Your task to perform on an android device: What is the news today? Image 0: 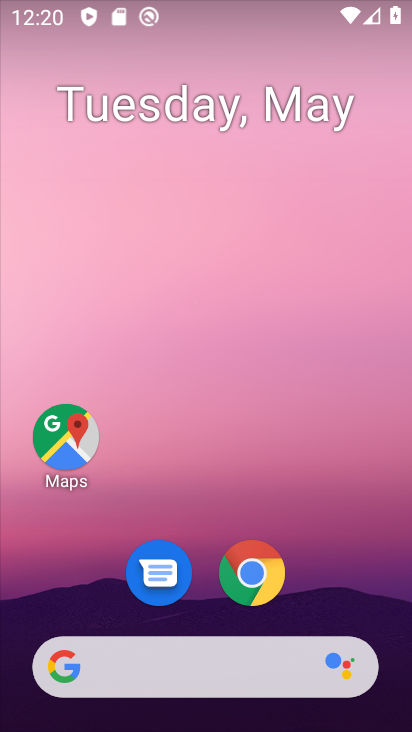
Step 0: drag from (20, 299) to (403, 224)
Your task to perform on an android device: What is the news today? Image 1: 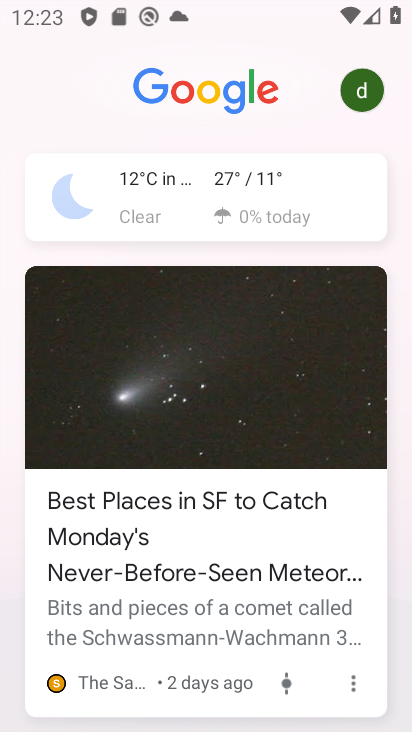
Step 1: task complete